Your task to perform on an android device: Open Google Chrome and open the bookmarks view Image 0: 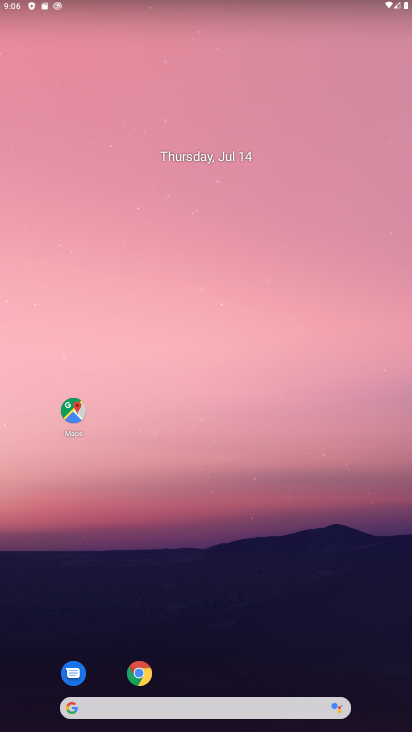
Step 0: click (142, 681)
Your task to perform on an android device: Open Google Chrome and open the bookmarks view Image 1: 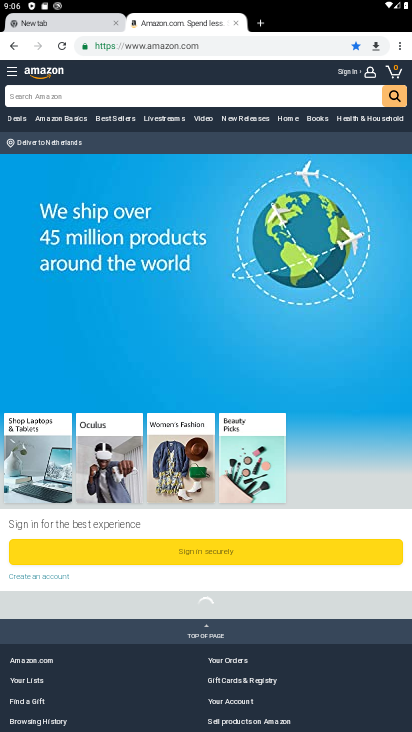
Step 1: click (397, 50)
Your task to perform on an android device: Open Google Chrome and open the bookmarks view Image 2: 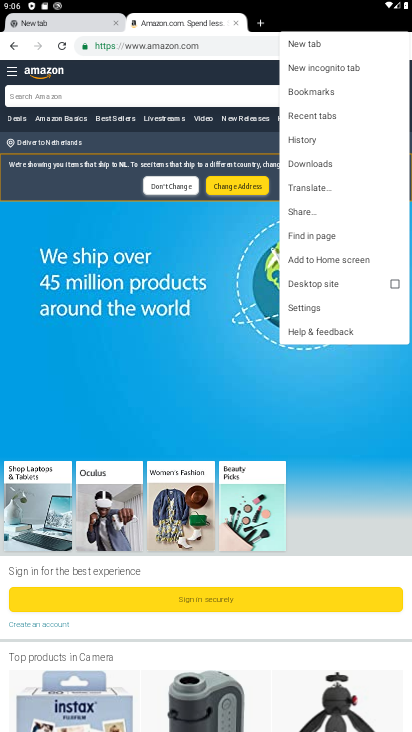
Step 2: click (339, 93)
Your task to perform on an android device: Open Google Chrome and open the bookmarks view Image 3: 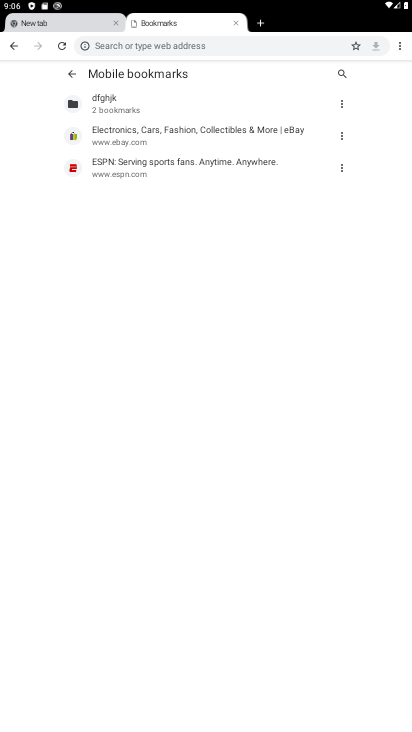
Step 3: task complete